Your task to perform on an android device: Open the web browser Image 0: 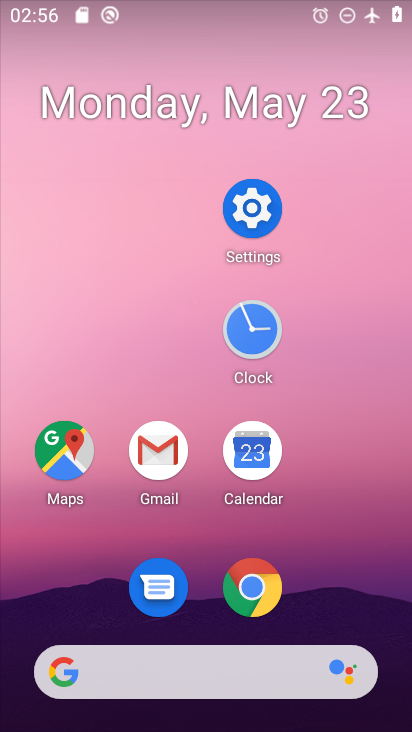
Step 0: click (266, 589)
Your task to perform on an android device: Open the web browser Image 1: 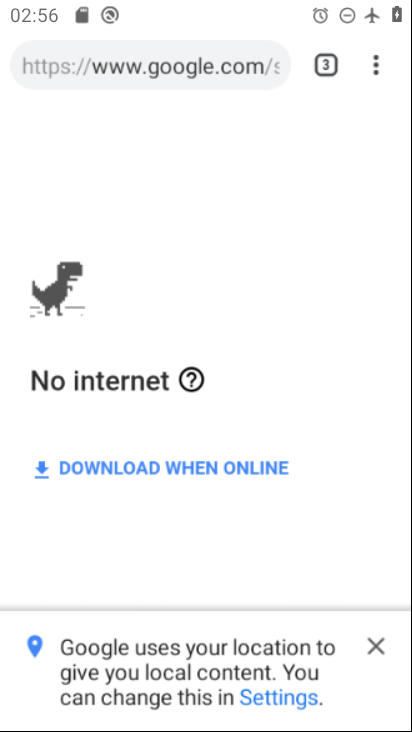
Step 1: task complete